Your task to perform on an android device: Open my contact list Image 0: 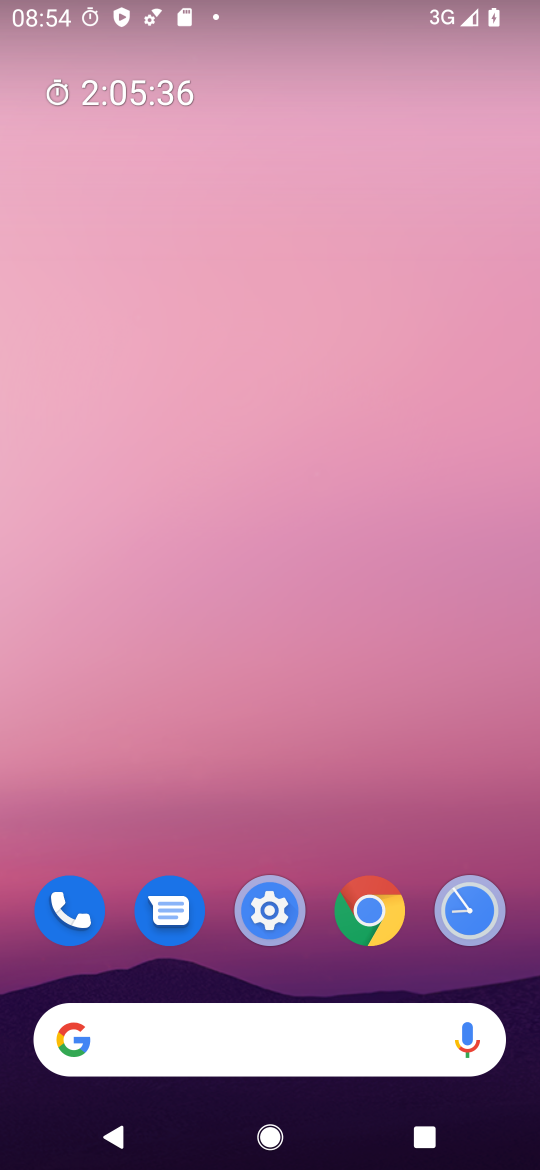
Step 0: drag from (391, 1039) to (392, 36)
Your task to perform on an android device: Open my contact list Image 1: 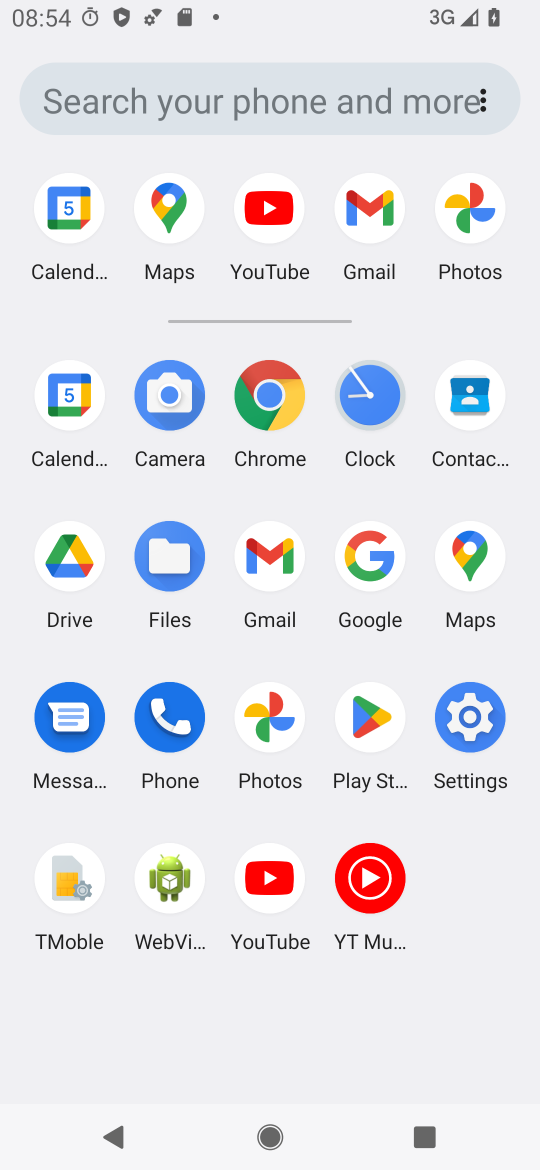
Step 1: click (467, 392)
Your task to perform on an android device: Open my contact list Image 2: 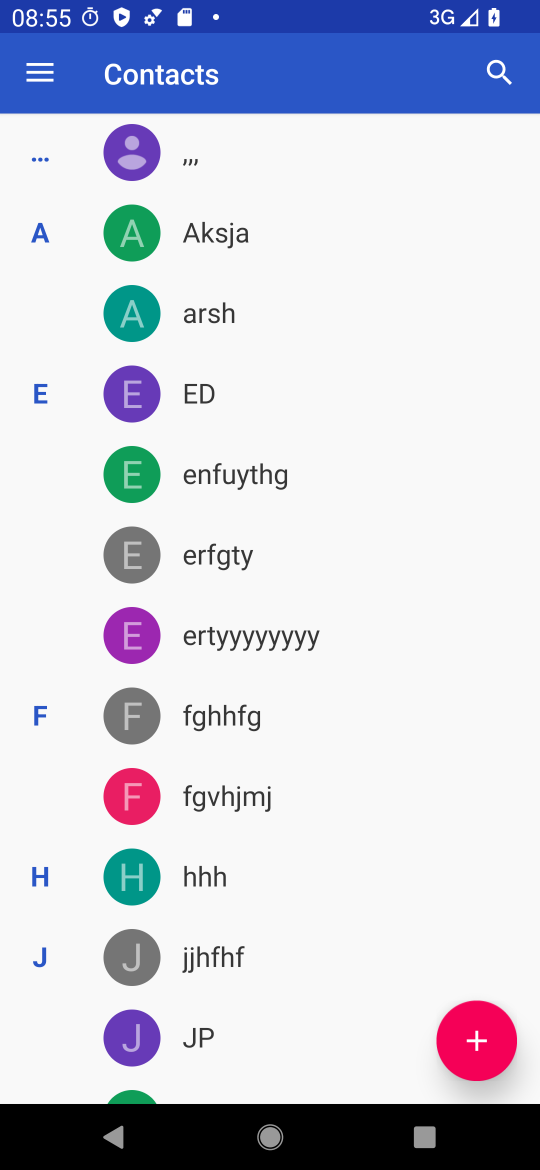
Step 2: task complete